Your task to perform on an android device: Open Android settings Image 0: 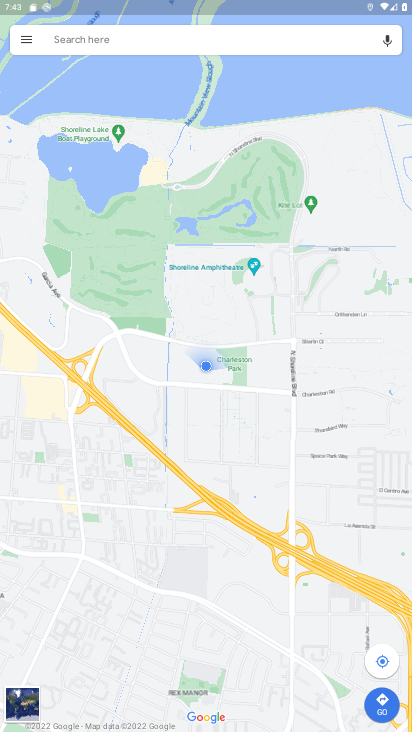
Step 0: press home button
Your task to perform on an android device: Open Android settings Image 1: 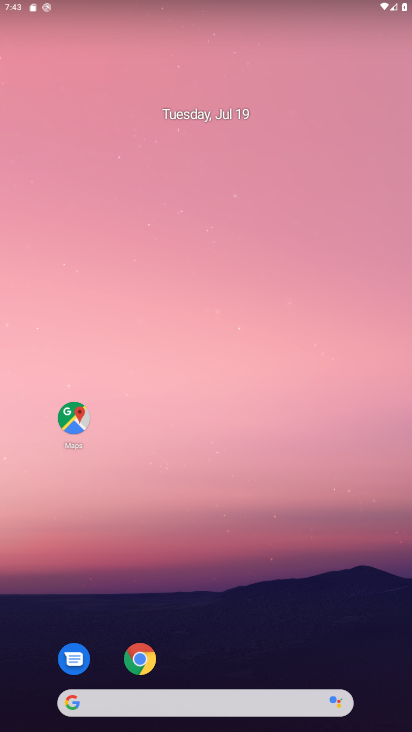
Step 1: drag from (259, 616) to (290, 98)
Your task to perform on an android device: Open Android settings Image 2: 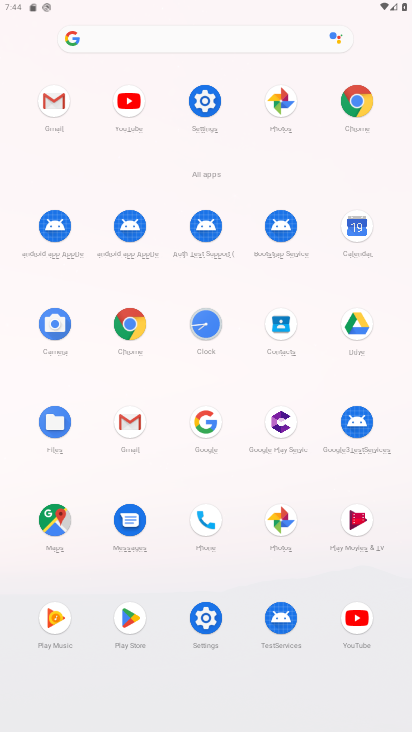
Step 2: click (207, 630)
Your task to perform on an android device: Open Android settings Image 3: 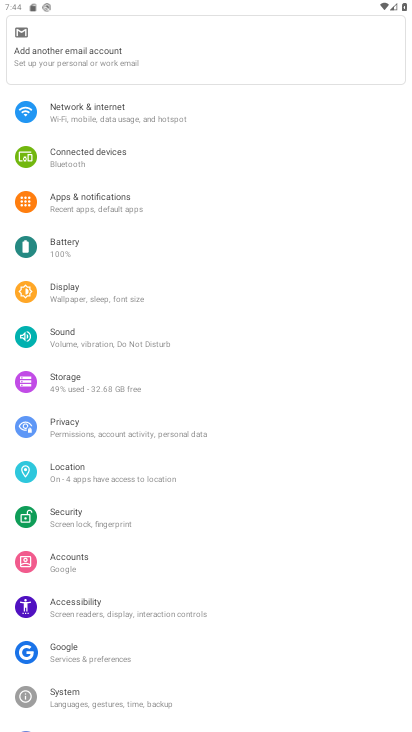
Step 3: drag from (95, 655) to (103, 370)
Your task to perform on an android device: Open Android settings Image 4: 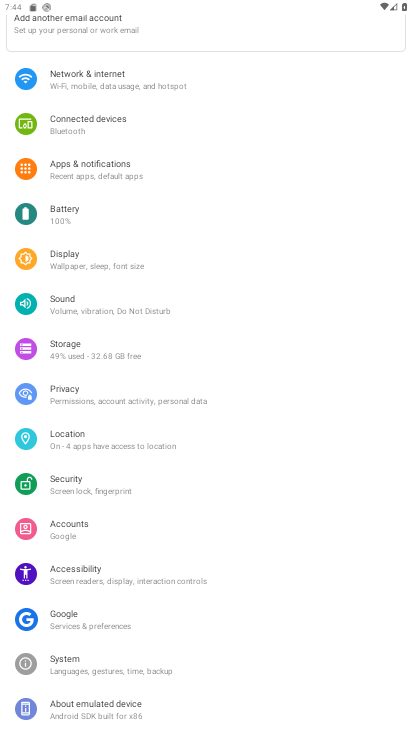
Step 4: click (104, 718)
Your task to perform on an android device: Open Android settings Image 5: 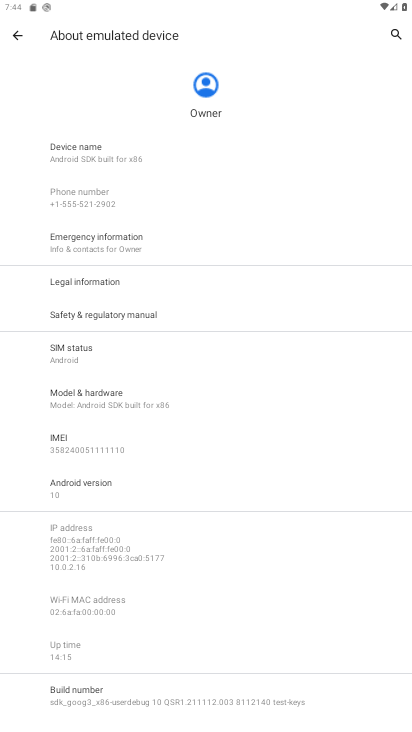
Step 5: click (98, 483)
Your task to perform on an android device: Open Android settings Image 6: 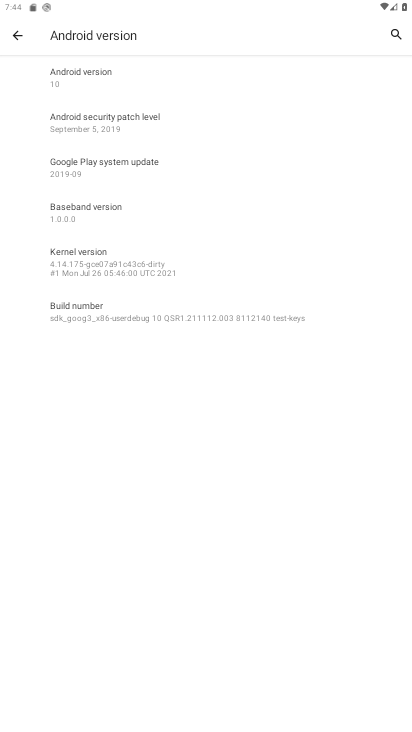
Step 6: task complete